Your task to perform on an android device: Go to accessibility settings Image 0: 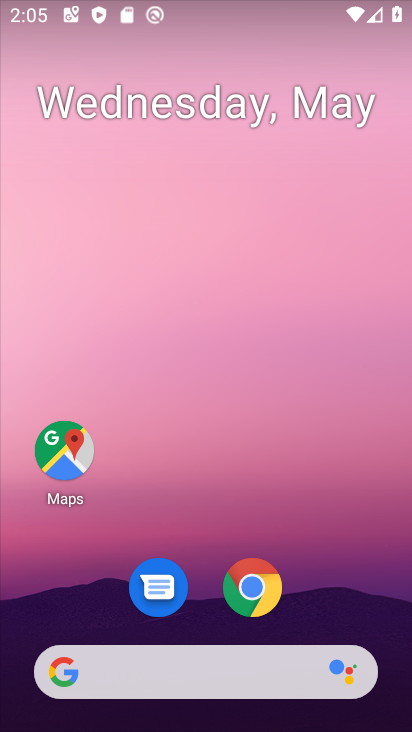
Step 0: drag from (331, 628) to (333, 7)
Your task to perform on an android device: Go to accessibility settings Image 1: 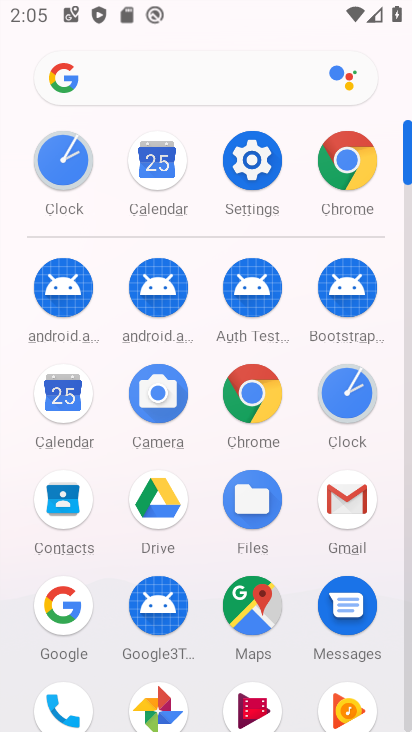
Step 1: click (257, 181)
Your task to perform on an android device: Go to accessibility settings Image 2: 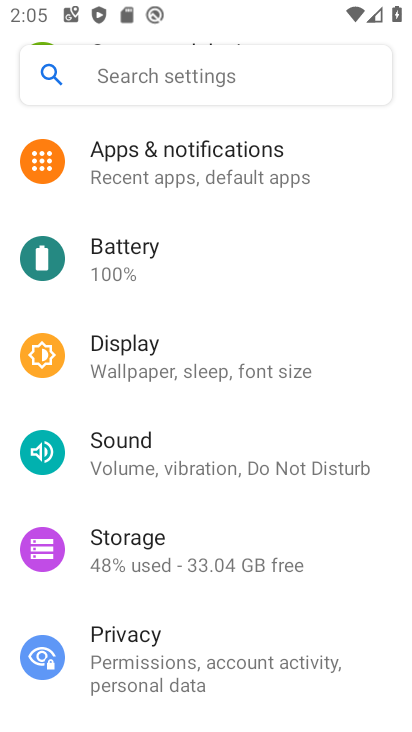
Step 2: drag from (205, 648) to (275, 34)
Your task to perform on an android device: Go to accessibility settings Image 3: 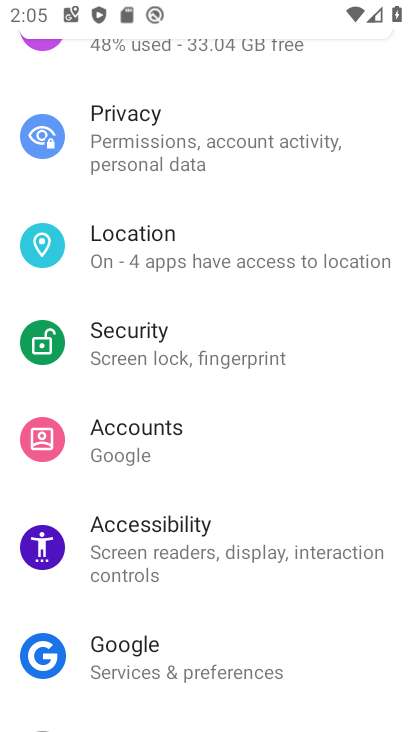
Step 3: click (188, 534)
Your task to perform on an android device: Go to accessibility settings Image 4: 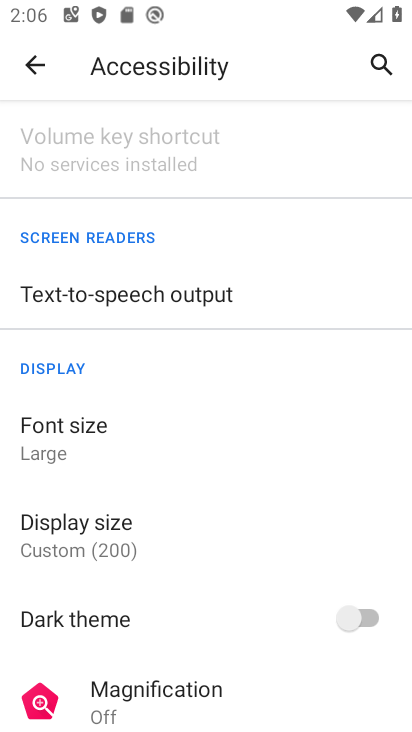
Step 4: task complete